Your task to perform on an android device: Go to accessibility settings Image 0: 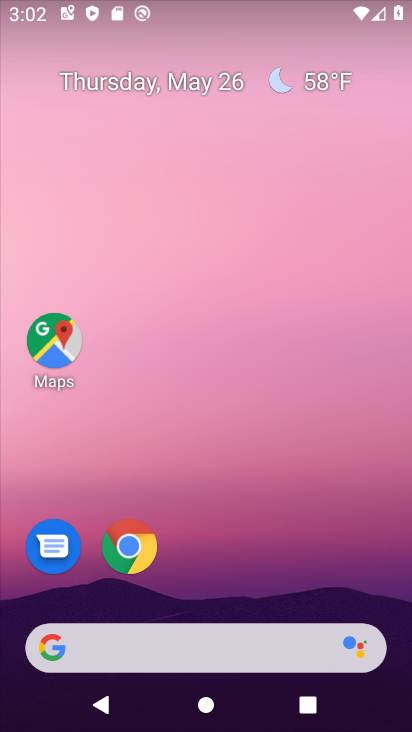
Step 0: drag from (204, 597) to (220, 3)
Your task to perform on an android device: Go to accessibility settings Image 1: 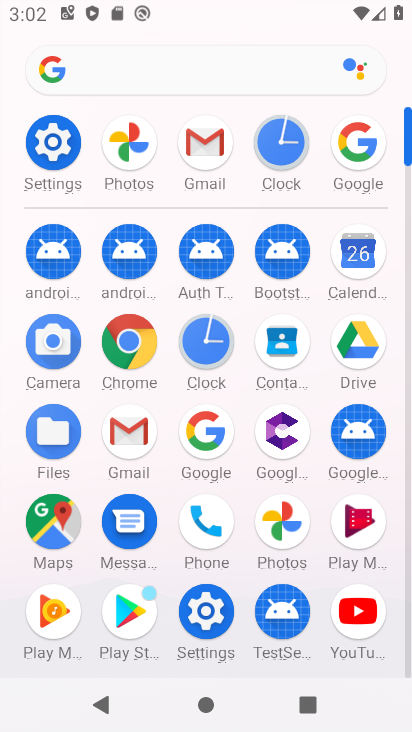
Step 1: click (211, 605)
Your task to perform on an android device: Go to accessibility settings Image 2: 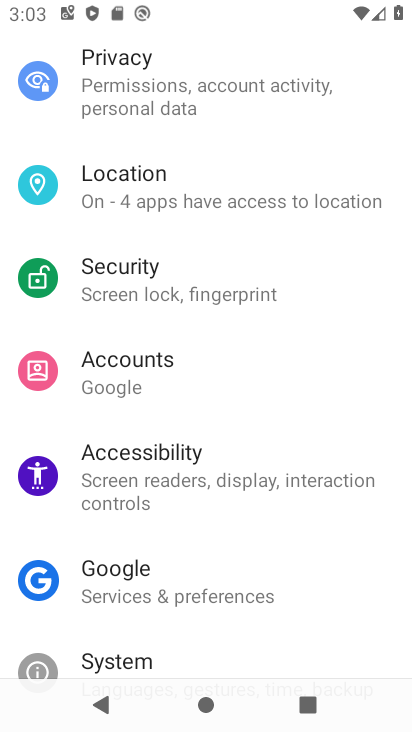
Step 2: click (152, 453)
Your task to perform on an android device: Go to accessibility settings Image 3: 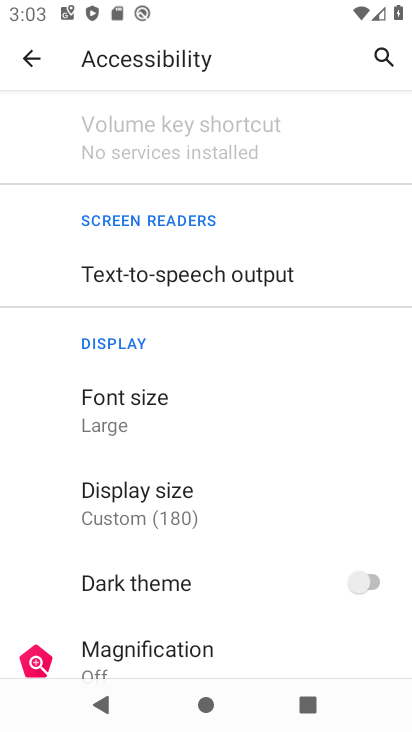
Step 3: task complete